Your task to perform on an android device: Open the phone app and click the voicemail tab. Image 0: 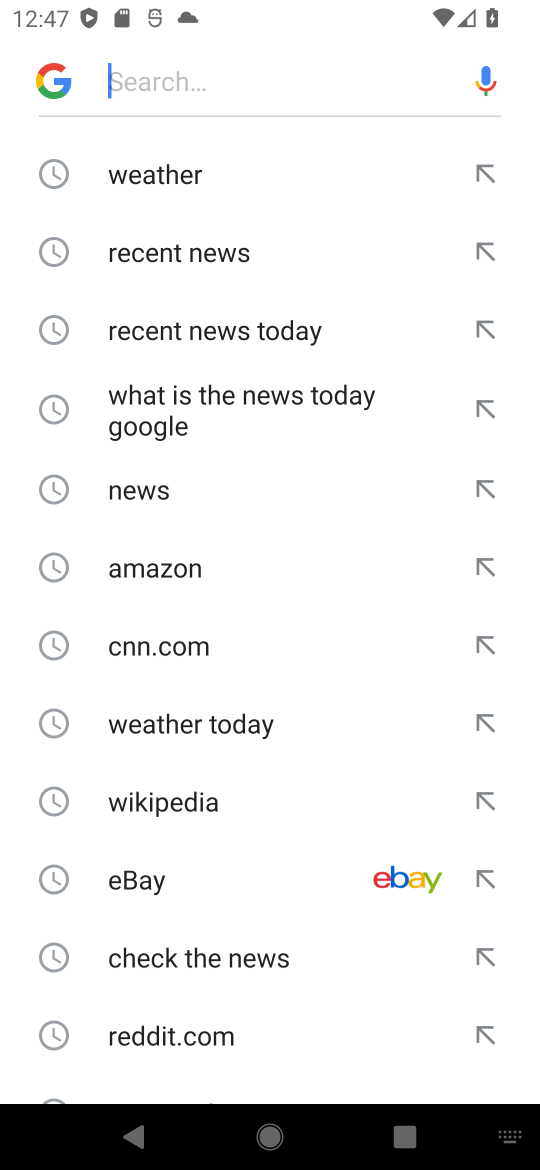
Step 0: press home button
Your task to perform on an android device: Open the phone app and click the voicemail tab. Image 1: 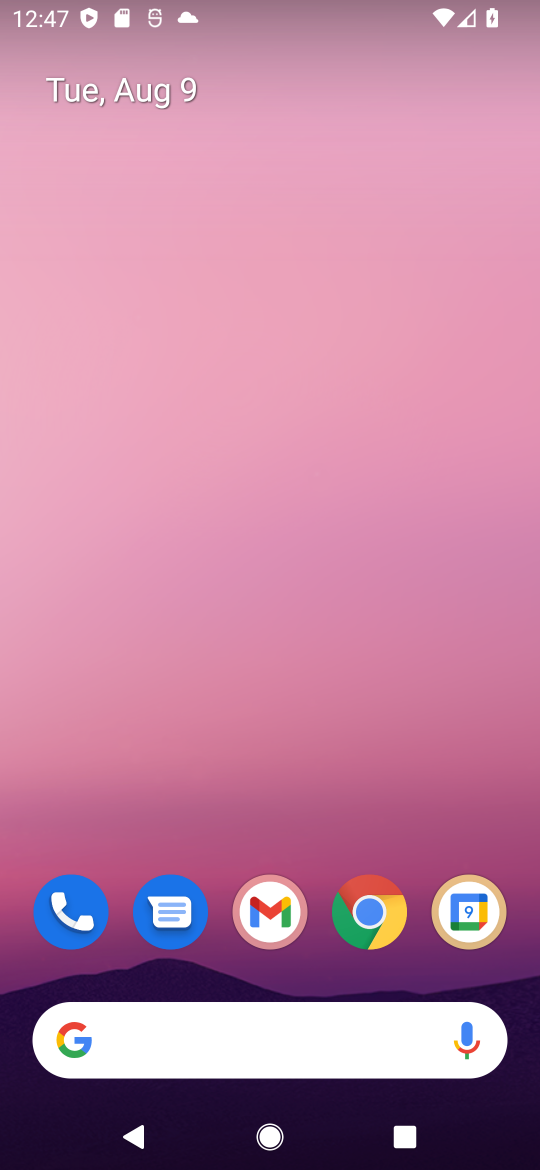
Step 1: drag from (279, 723) to (266, 396)
Your task to perform on an android device: Open the phone app and click the voicemail tab. Image 2: 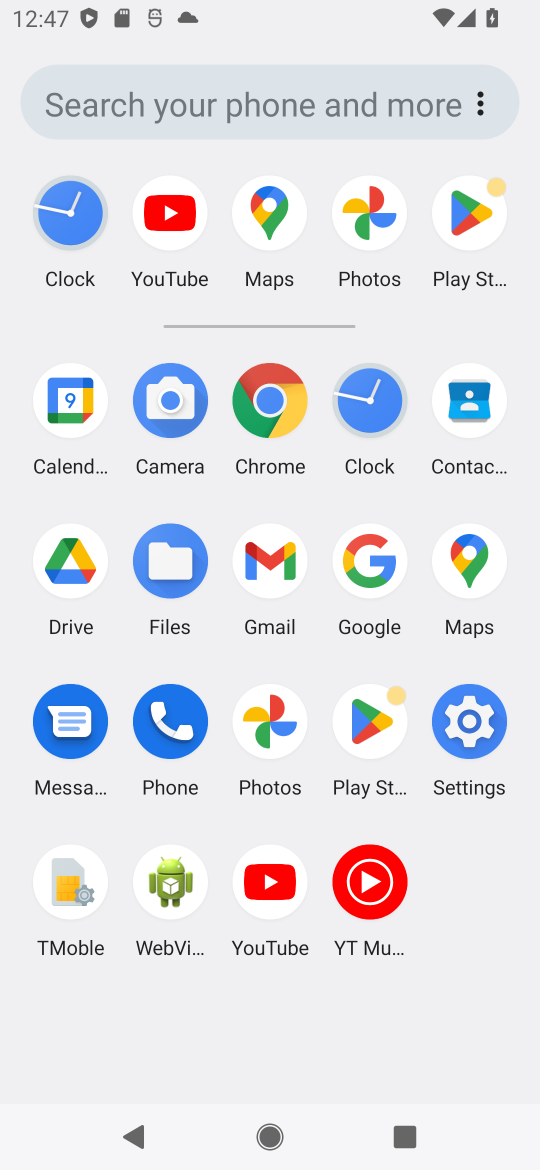
Step 2: click (169, 724)
Your task to perform on an android device: Open the phone app and click the voicemail tab. Image 3: 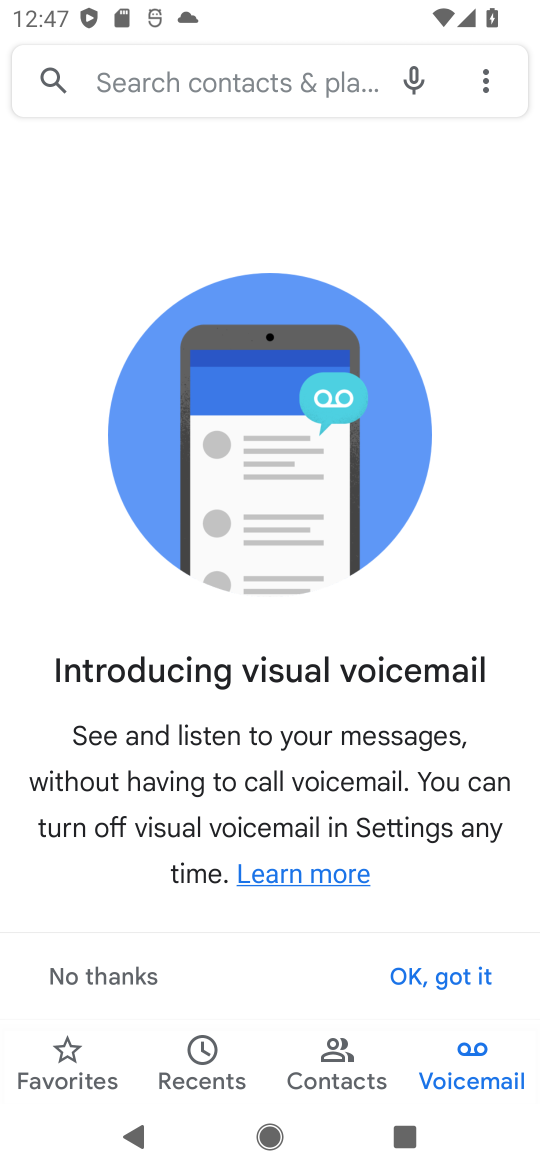
Step 3: task complete